Your task to perform on an android device: Open Chrome and go to the settings page Image 0: 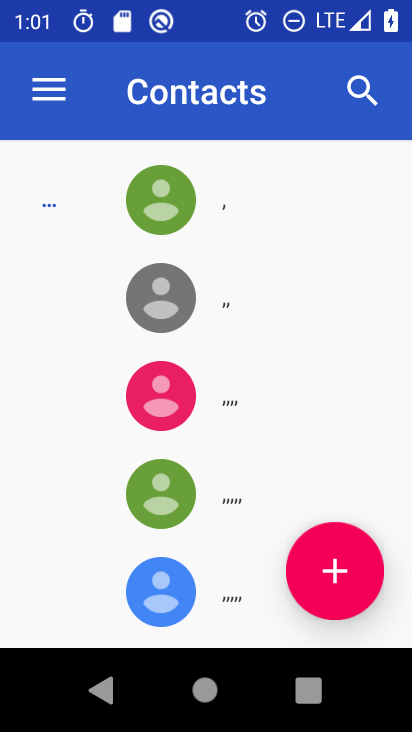
Step 0: press home button
Your task to perform on an android device: Open Chrome and go to the settings page Image 1: 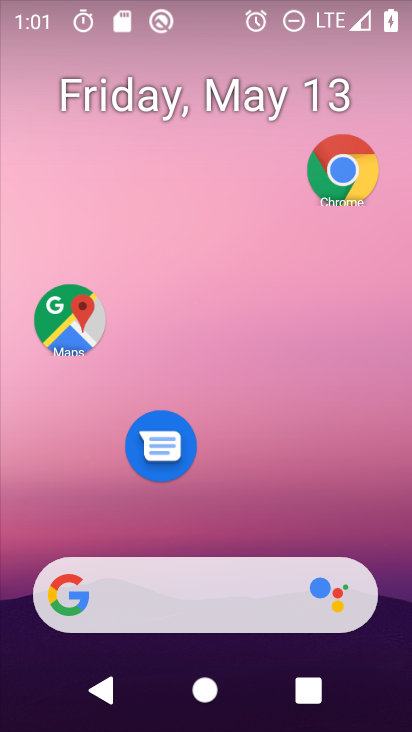
Step 1: drag from (281, 616) to (355, 12)
Your task to perform on an android device: Open Chrome and go to the settings page Image 2: 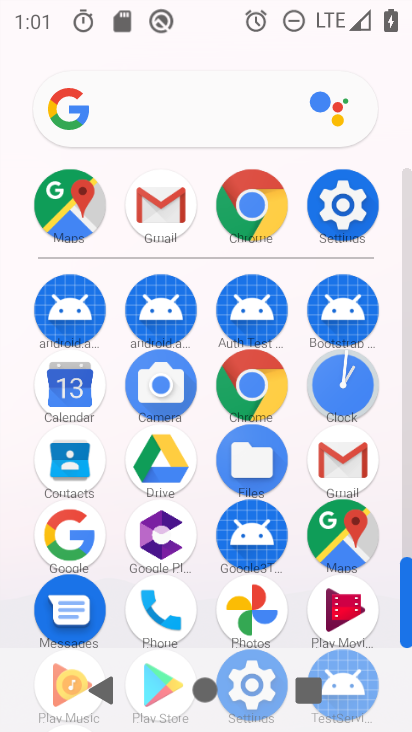
Step 2: click (247, 373)
Your task to perform on an android device: Open Chrome and go to the settings page Image 3: 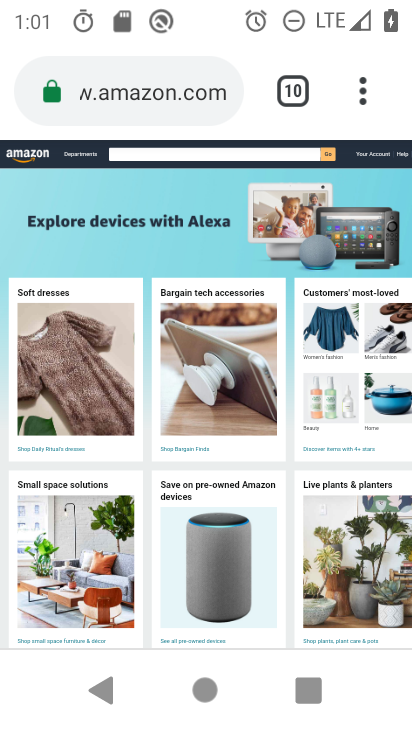
Step 3: task complete